Your task to perform on an android device: Open the calendar app, open the side menu, and click the "Day" option Image 0: 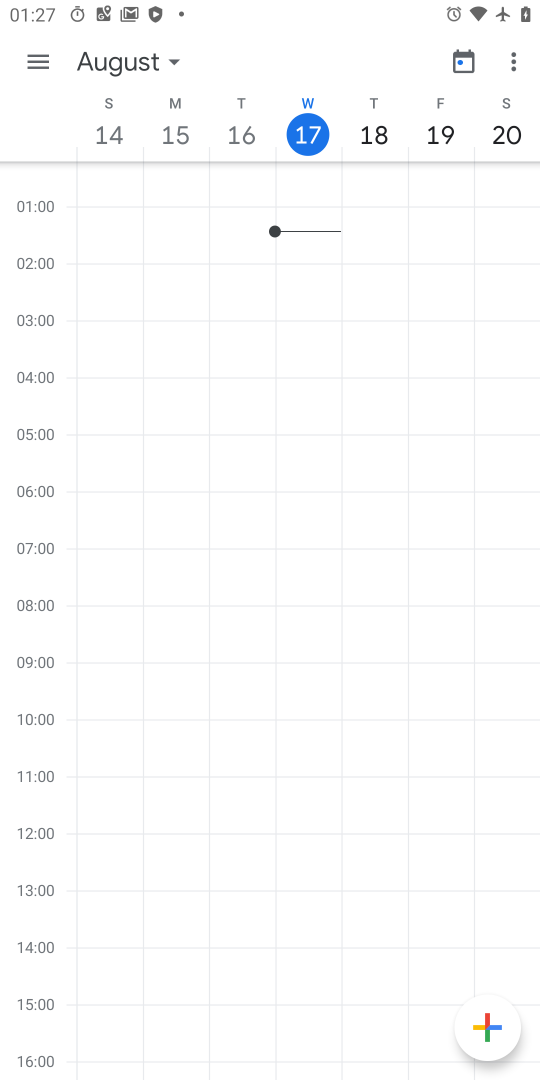
Step 0: press home button
Your task to perform on an android device: Open the calendar app, open the side menu, and click the "Day" option Image 1: 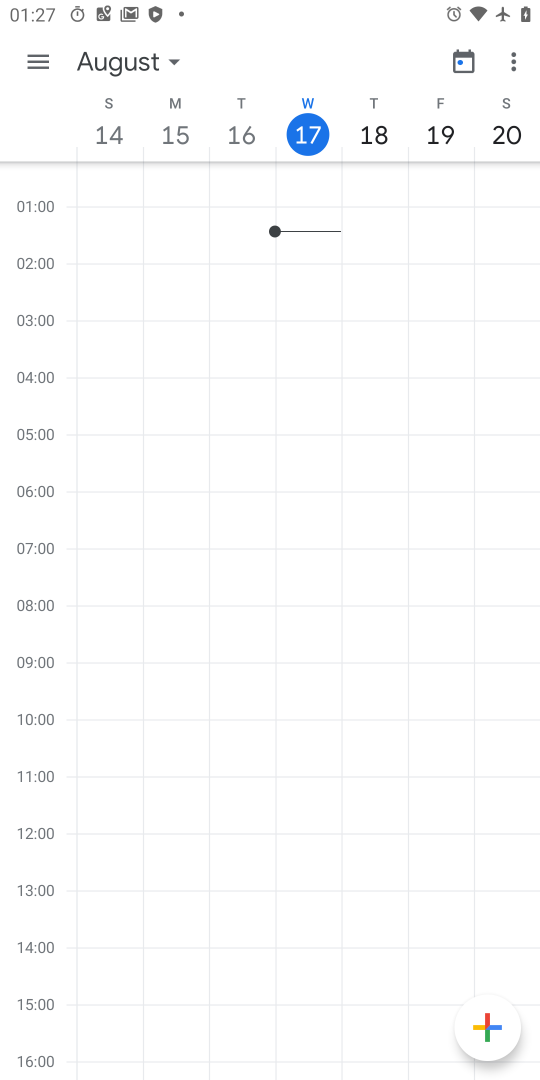
Step 1: press home button
Your task to perform on an android device: Open the calendar app, open the side menu, and click the "Day" option Image 2: 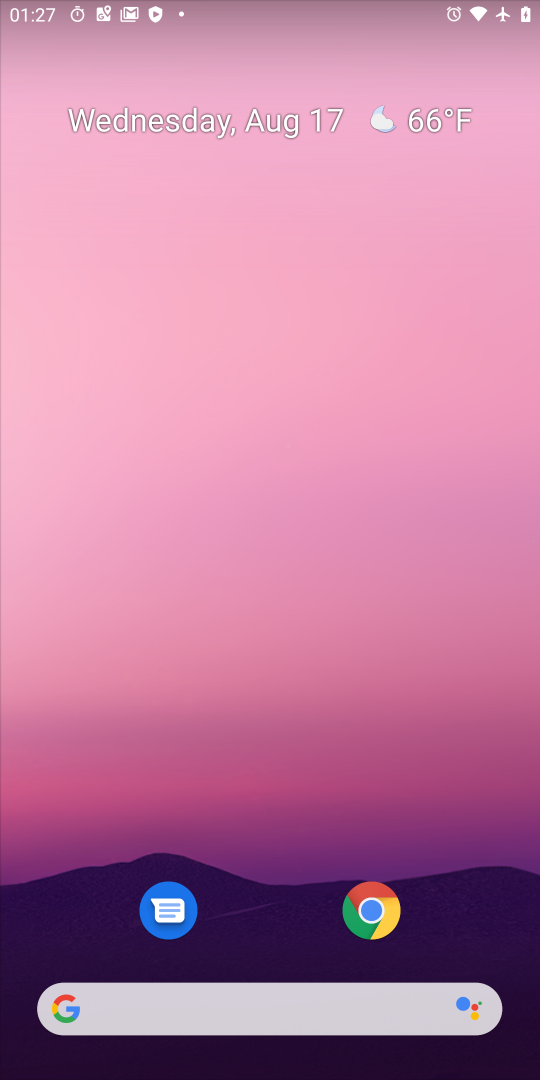
Step 2: drag from (258, 890) to (367, 149)
Your task to perform on an android device: Open the calendar app, open the side menu, and click the "Day" option Image 3: 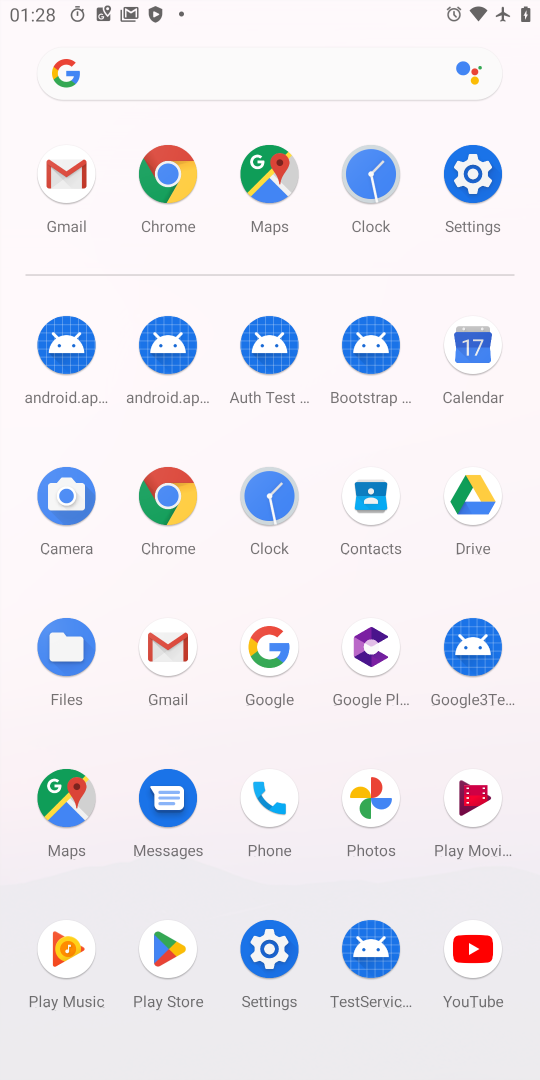
Step 3: click (476, 331)
Your task to perform on an android device: Open the calendar app, open the side menu, and click the "Day" option Image 4: 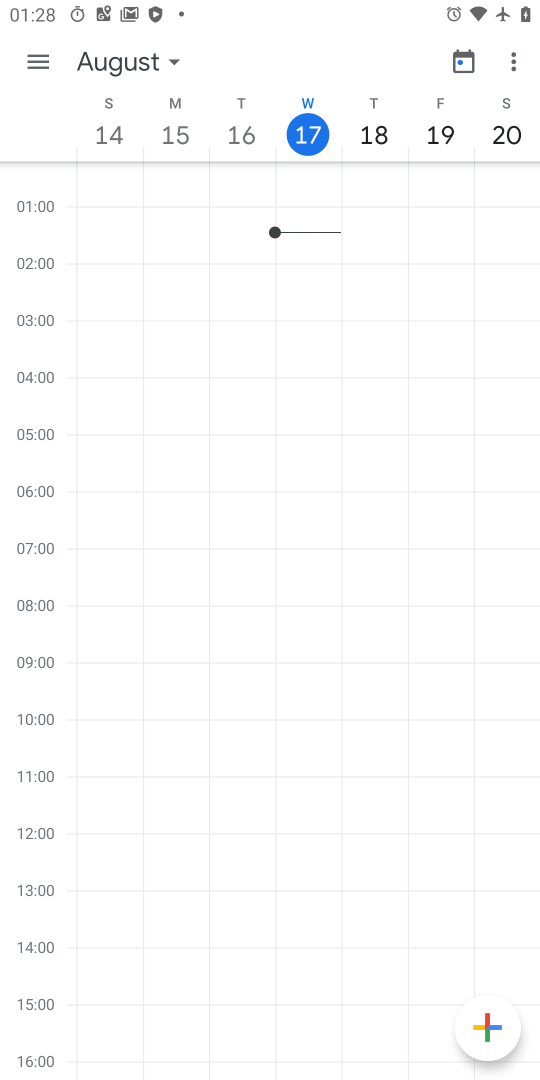
Step 4: click (17, 77)
Your task to perform on an android device: Open the calendar app, open the side menu, and click the "Day" option Image 5: 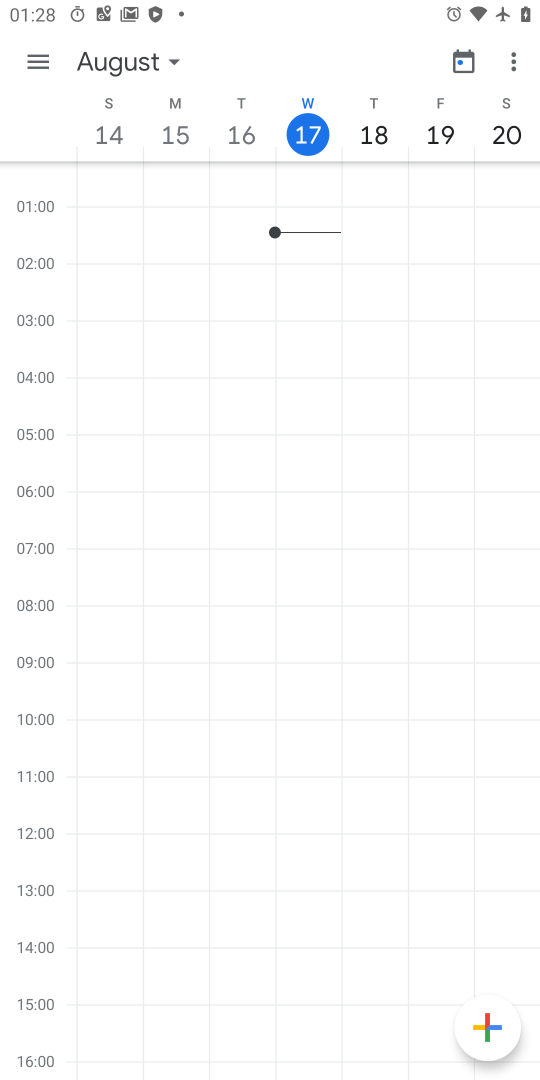
Step 5: click (36, 57)
Your task to perform on an android device: Open the calendar app, open the side menu, and click the "Day" option Image 6: 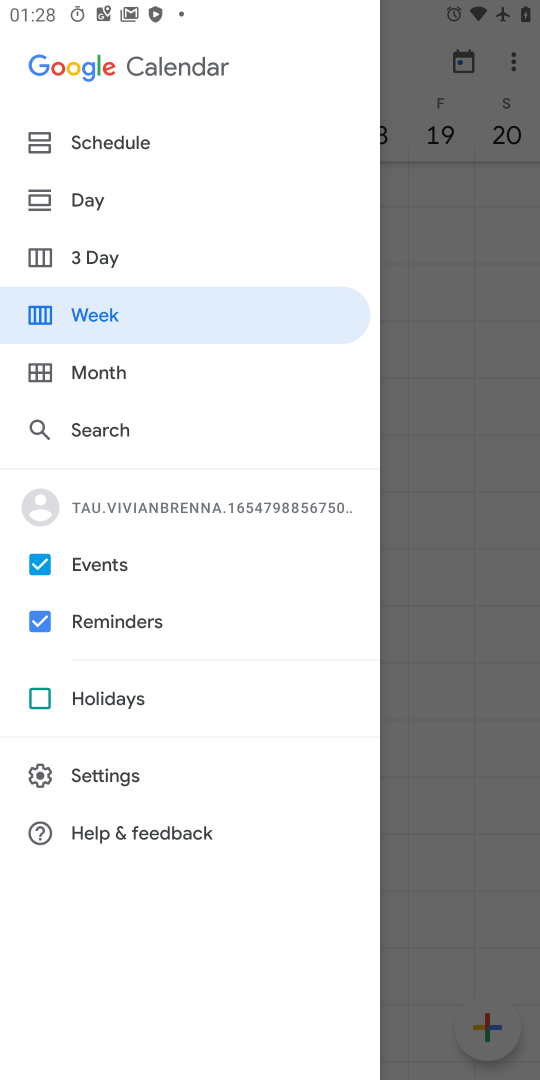
Step 6: click (78, 206)
Your task to perform on an android device: Open the calendar app, open the side menu, and click the "Day" option Image 7: 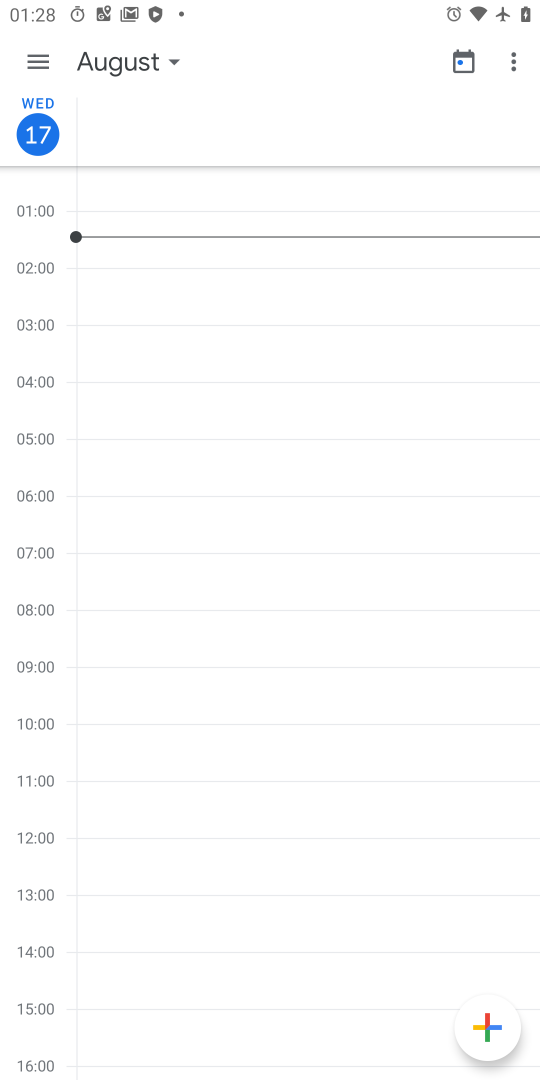
Step 7: task complete